Your task to perform on an android device: Show the shopping cart on walmart. Search for "razer blackwidow" on walmart, select the first entry, and add it to the cart. Image 0: 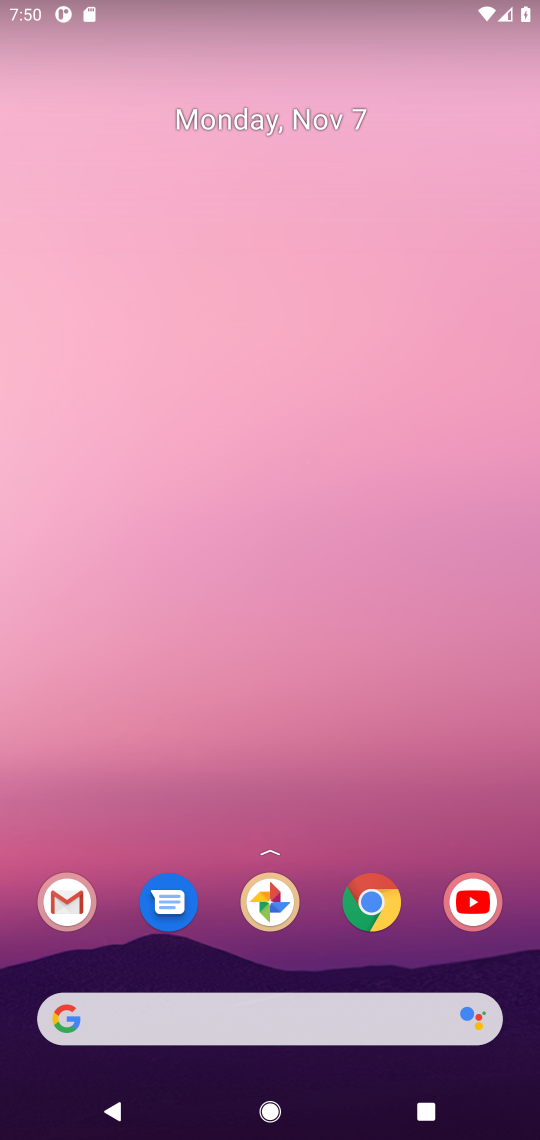
Step 0: click (366, 898)
Your task to perform on an android device: Show the shopping cart on walmart. Search for "razer blackwidow" on walmart, select the first entry, and add it to the cart. Image 1: 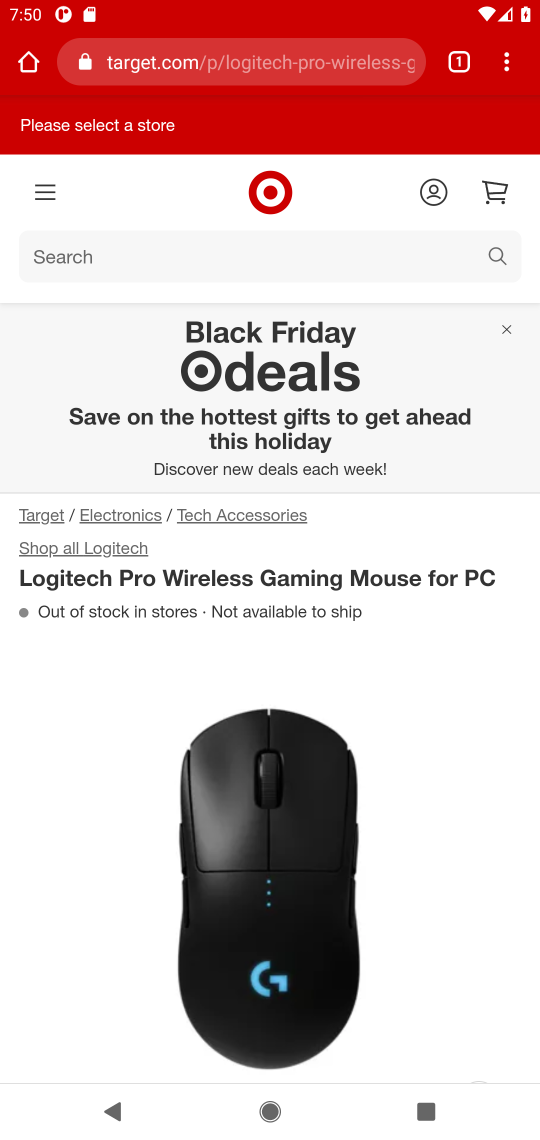
Step 1: click (232, 71)
Your task to perform on an android device: Show the shopping cart on walmart. Search for "razer blackwidow" on walmart, select the first entry, and add it to the cart. Image 2: 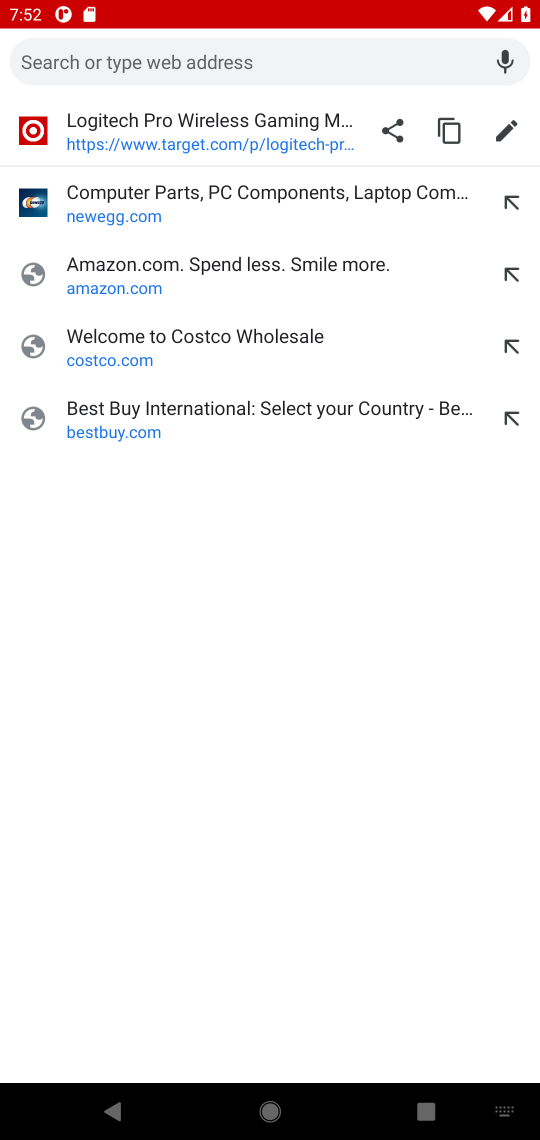
Step 2: type "walmart.com"
Your task to perform on an android device: Show the shopping cart on walmart. Search for "razer blackwidow" on walmart, select the first entry, and add it to the cart. Image 3: 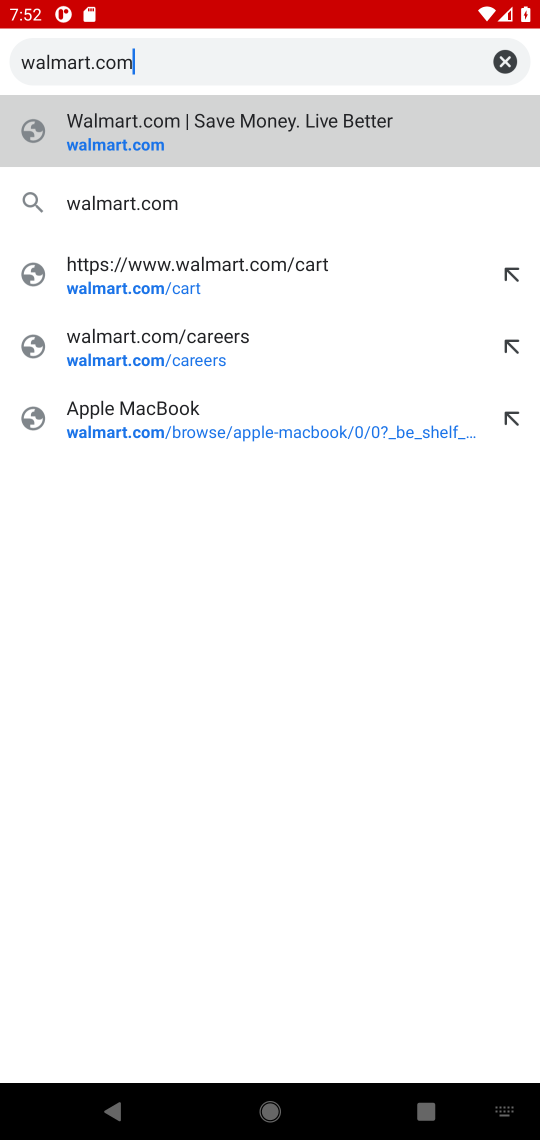
Step 3: click (108, 148)
Your task to perform on an android device: Show the shopping cart on walmart. Search for "razer blackwidow" on walmart, select the first entry, and add it to the cart. Image 4: 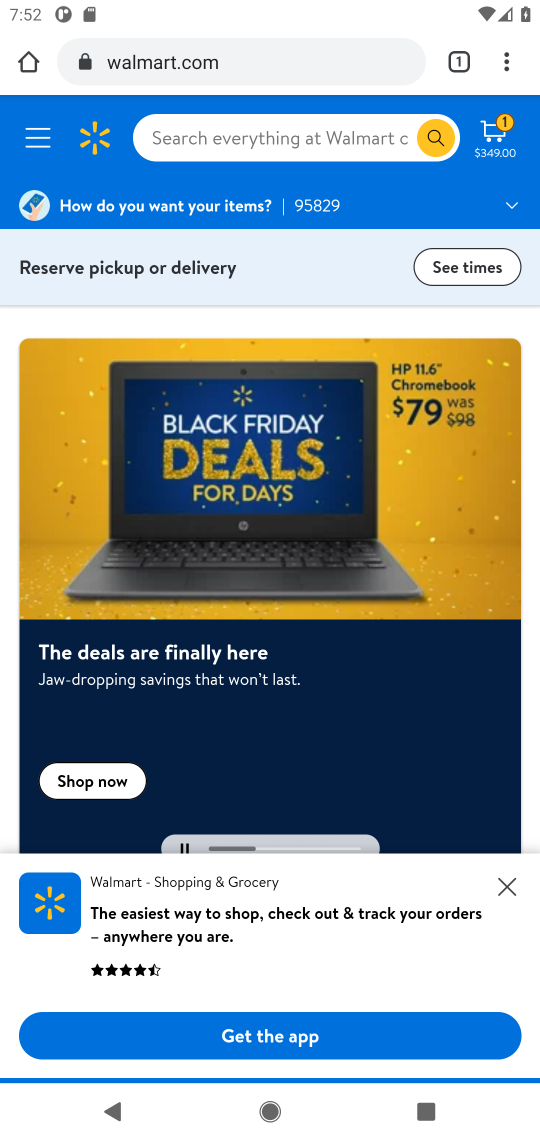
Step 4: click (496, 144)
Your task to perform on an android device: Show the shopping cart on walmart. Search for "razer blackwidow" on walmart, select the first entry, and add it to the cart. Image 5: 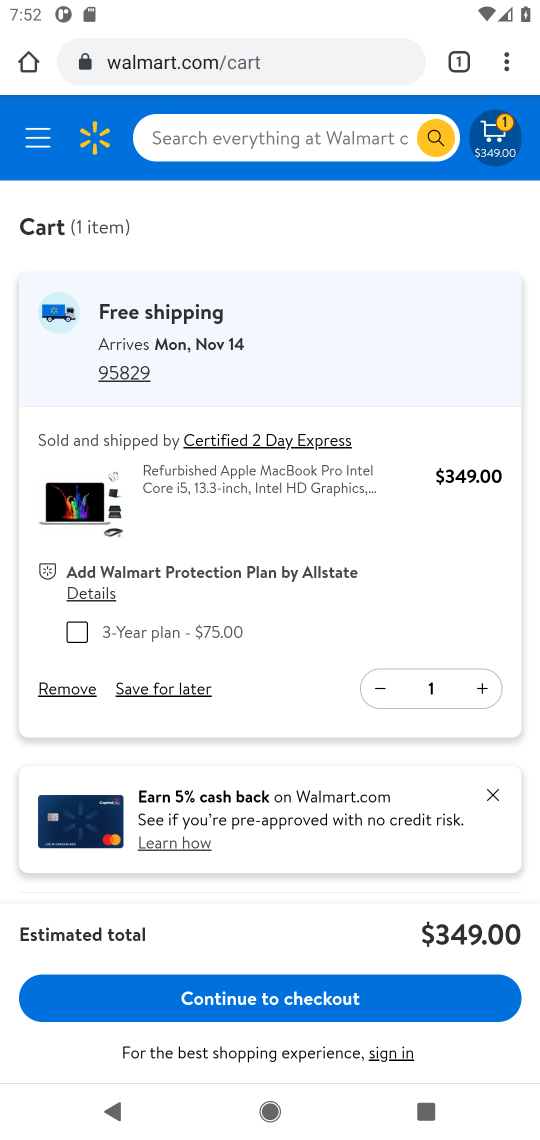
Step 5: click (285, 146)
Your task to perform on an android device: Show the shopping cart on walmart. Search for "razer blackwidow" on walmart, select the first entry, and add it to the cart. Image 6: 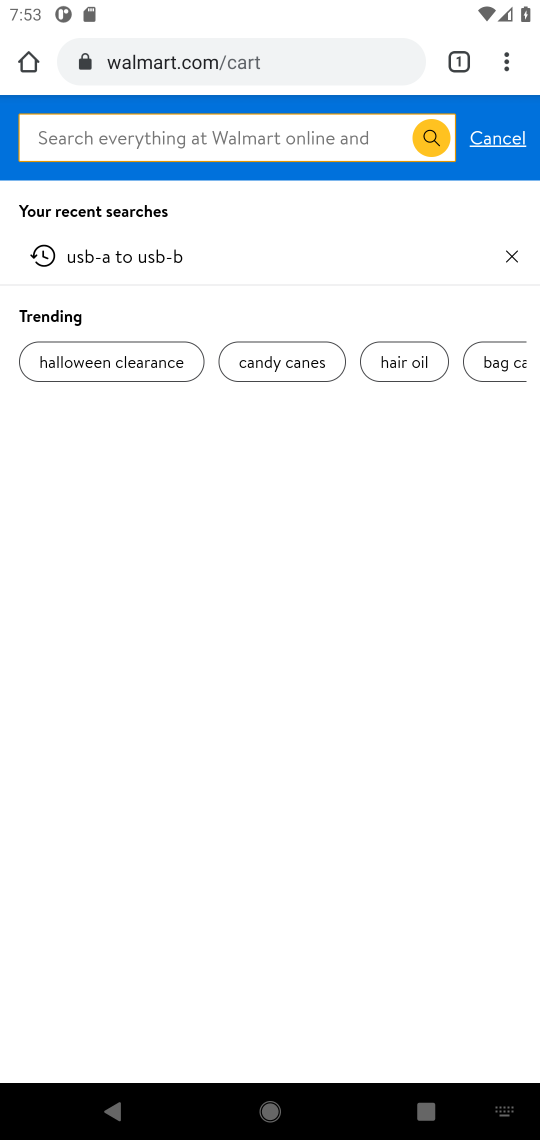
Step 6: type "razer blackwidow"
Your task to perform on an android device: Show the shopping cart on walmart. Search for "razer blackwidow" on walmart, select the first entry, and add it to the cart. Image 7: 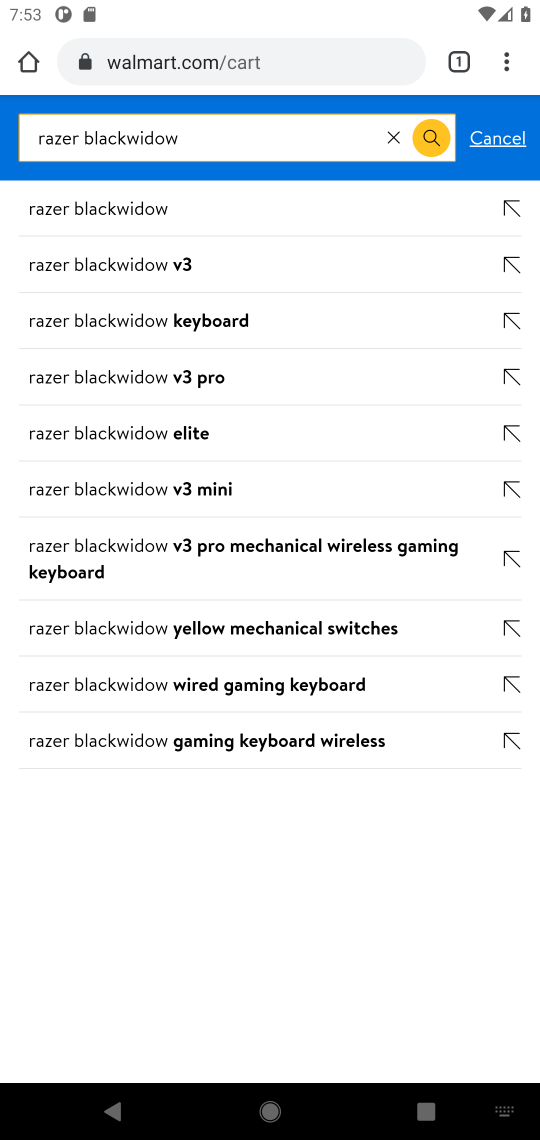
Step 7: click (139, 208)
Your task to perform on an android device: Show the shopping cart on walmart. Search for "razer blackwidow" on walmart, select the first entry, and add it to the cart. Image 8: 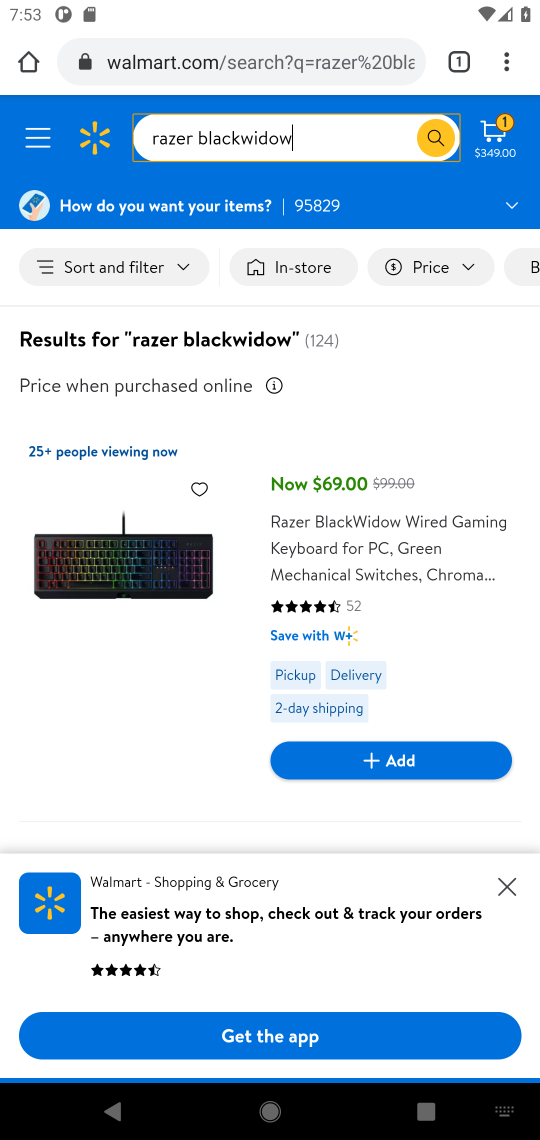
Step 8: click (218, 582)
Your task to perform on an android device: Show the shopping cart on walmart. Search for "razer blackwidow" on walmart, select the first entry, and add it to the cart. Image 9: 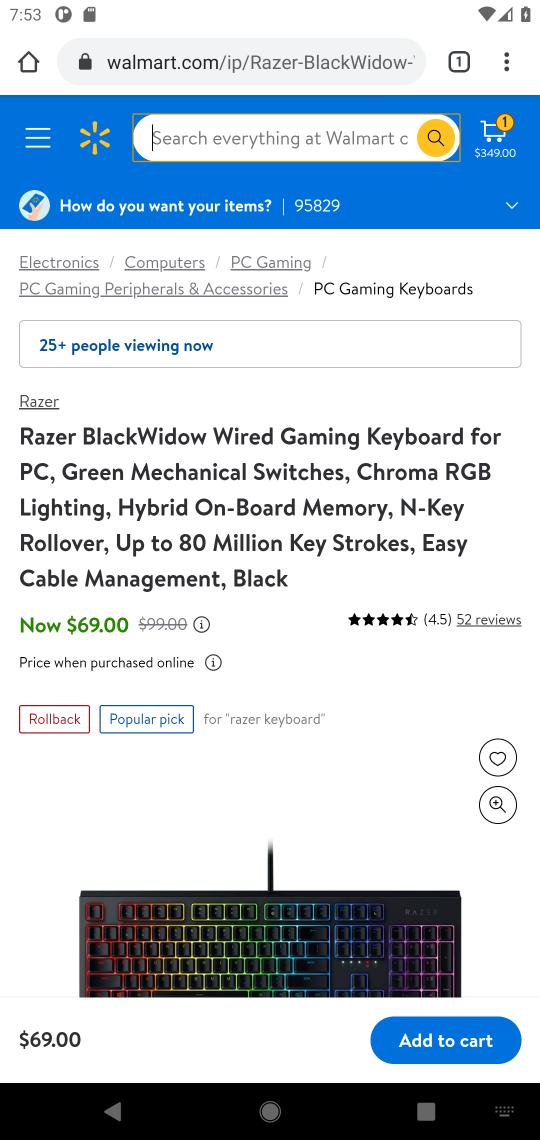
Step 9: click (450, 1040)
Your task to perform on an android device: Show the shopping cart on walmart. Search for "razer blackwidow" on walmart, select the first entry, and add it to the cart. Image 10: 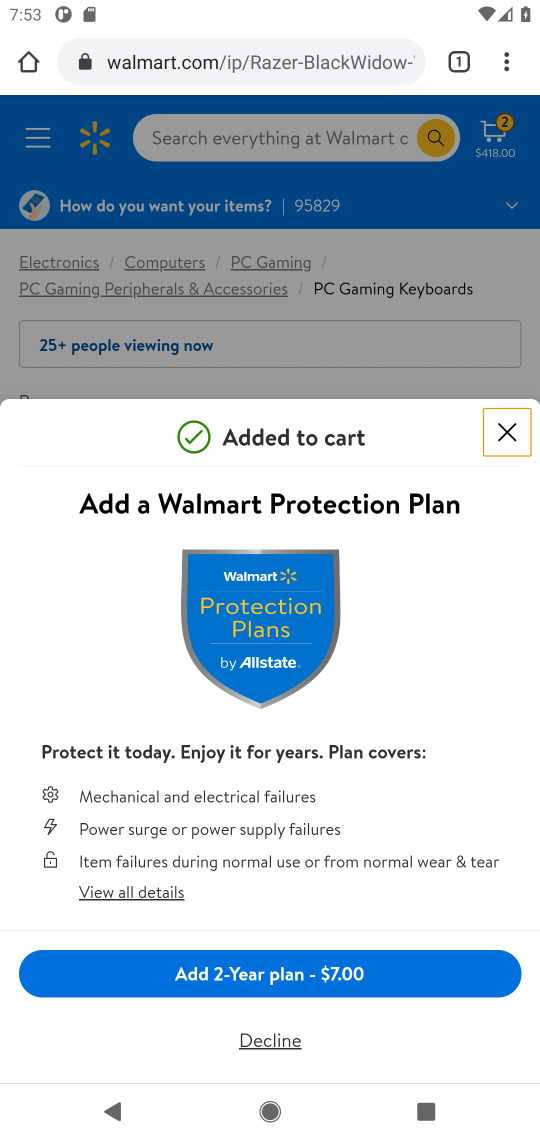
Step 10: task complete